Your task to perform on an android device: toggle improve location accuracy Image 0: 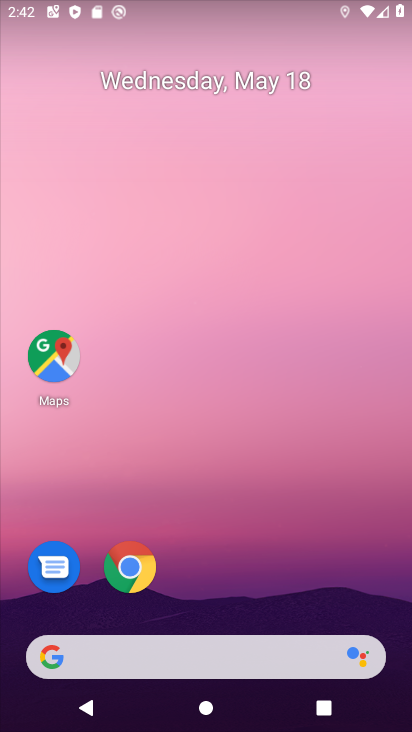
Step 0: drag from (201, 602) to (294, 52)
Your task to perform on an android device: toggle improve location accuracy Image 1: 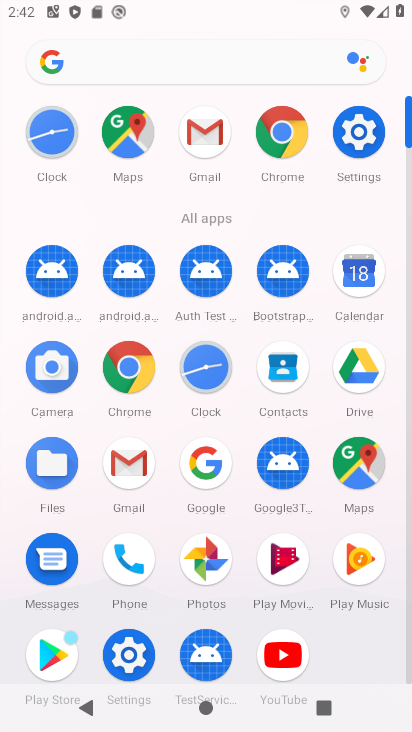
Step 1: click (354, 145)
Your task to perform on an android device: toggle improve location accuracy Image 2: 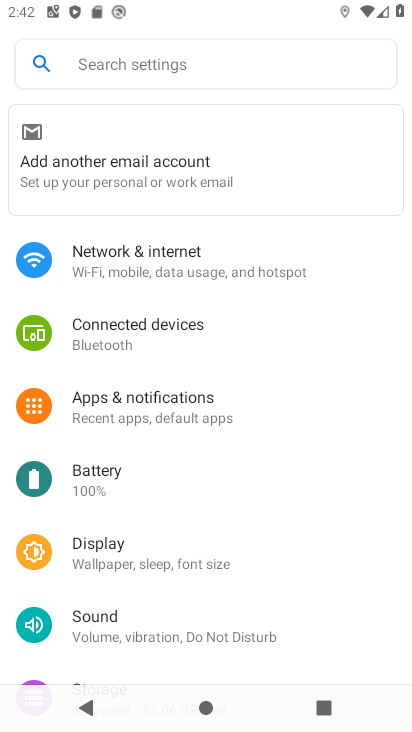
Step 2: drag from (141, 630) to (199, 295)
Your task to perform on an android device: toggle improve location accuracy Image 3: 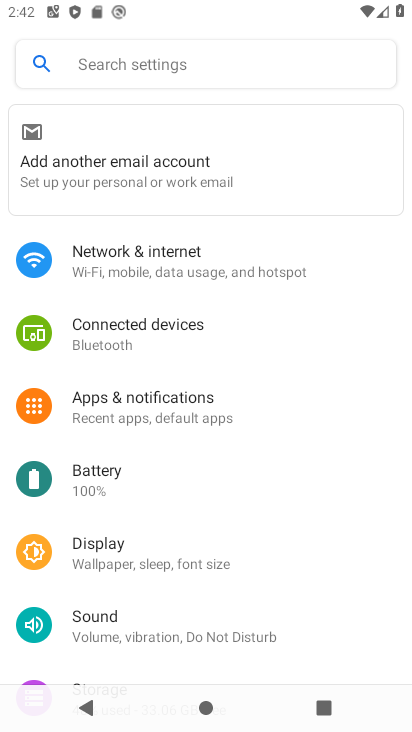
Step 3: drag from (185, 522) to (204, 290)
Your task to perform on an android device: toggle improve location accuracy Image 4: 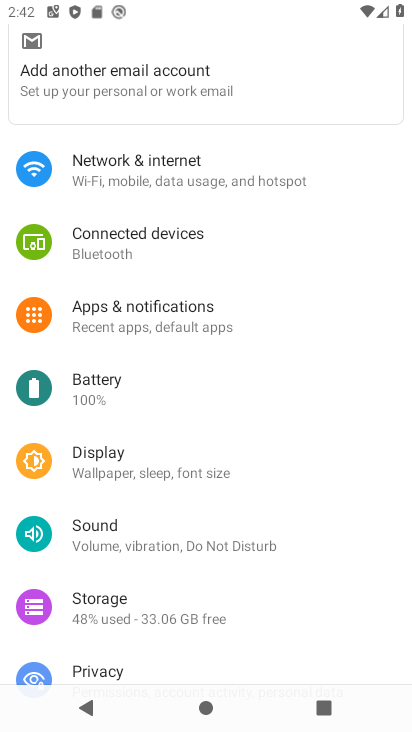
Step 4: drag from (162, 610) to (167, 357)
Your task to perform on an android device: toggle improve location accuracy Image 5: 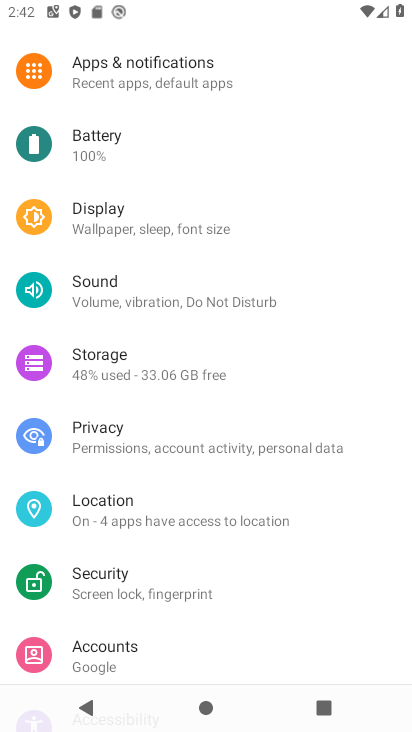
Step 5: click (125, 518)
Your task to perform on an android device: toggle improve location accuracy Image 6: 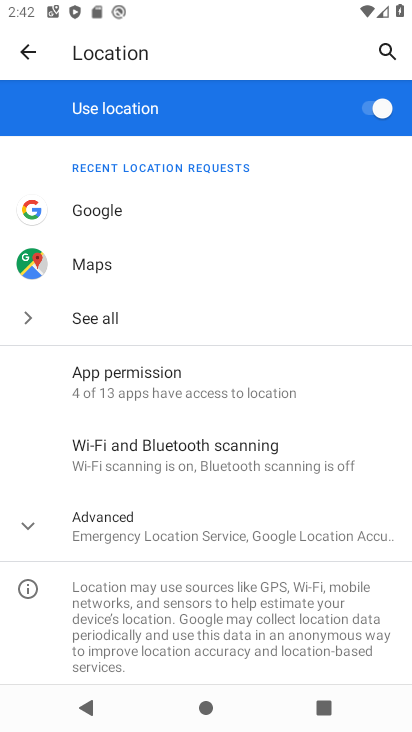
Step 6: click (132, 529)
Your task to perform on an android device: toggle improve location accuracy Image 7: 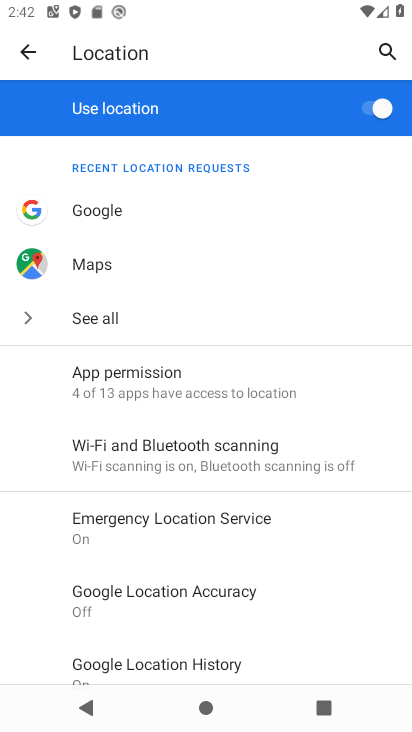
Step 7: click (140, 594)
Your task to perform on an android device: toggle improve location accuracy Image 8: 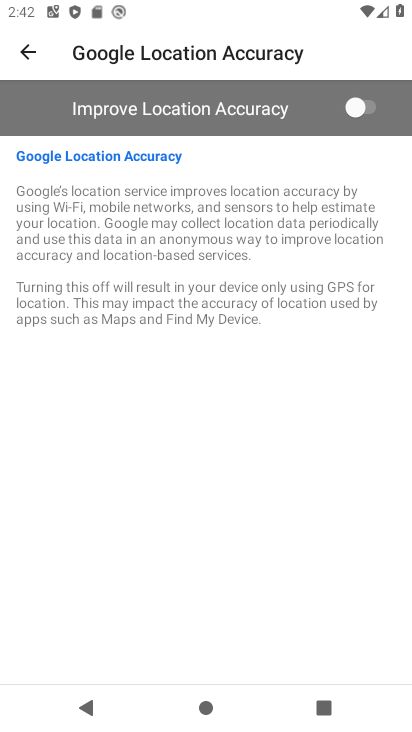
Step 8: click (368, 117)
Your task to perform on an android device: toggle improve location accuracy Image 9: 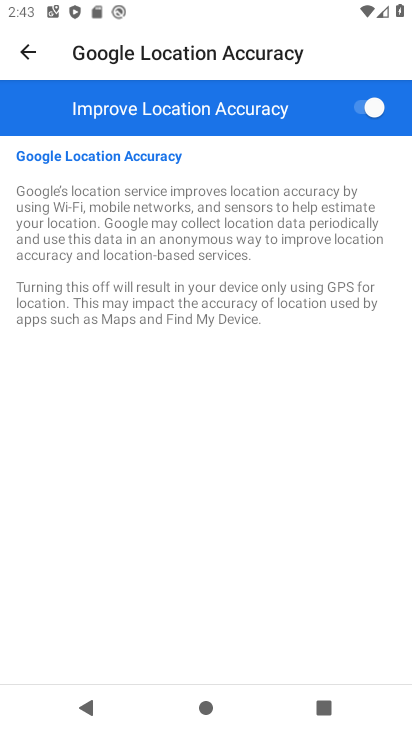
Step 9: task complete